Your task to perform on an android device: turn on location history Image 0: 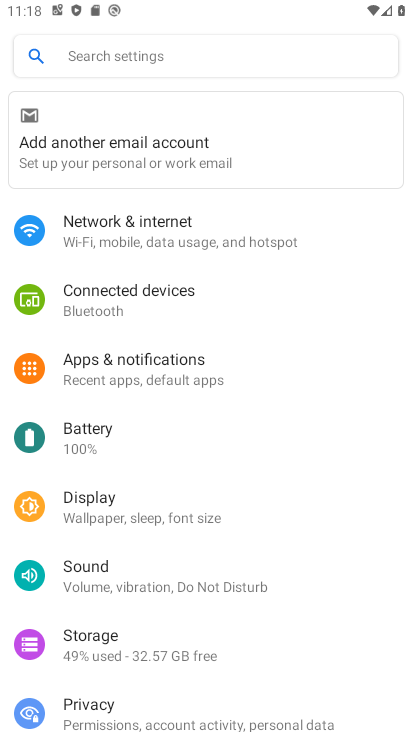
Step 0: press home button
Your task to perform on an android device: turn on location history Image 1: 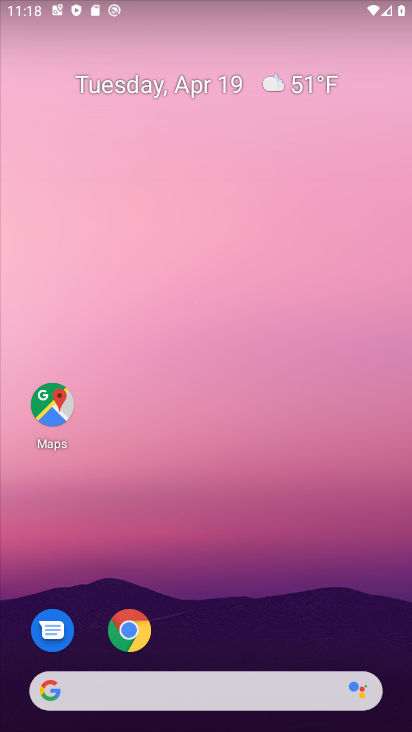
Step 1: click (58, 411)
Your task to perform on an android device: turn on location history Image 2: 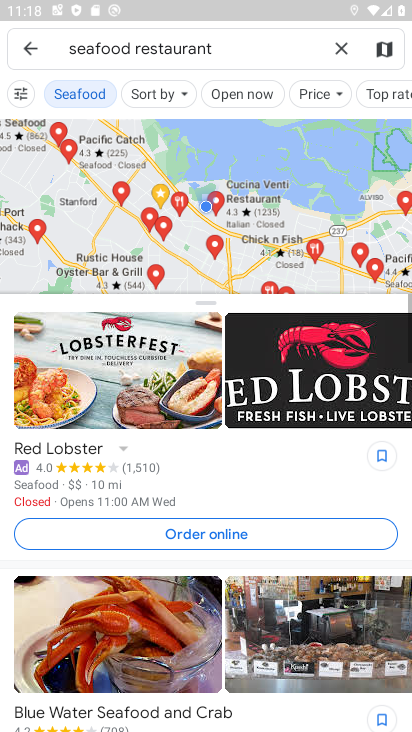
Step 2: click (35, 47)
Your task to perform on an android device: turn on location history Image 3: 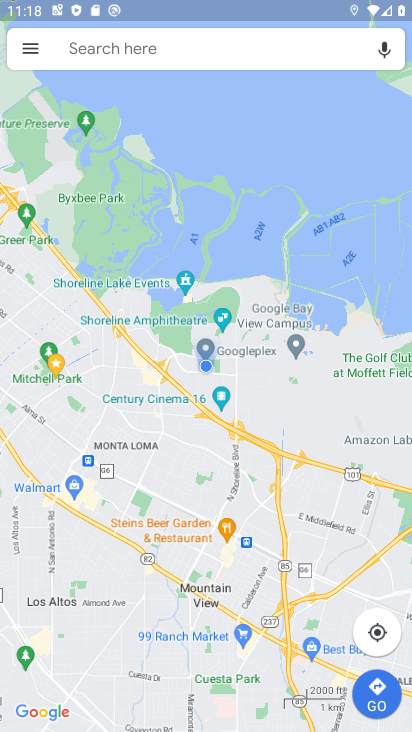
Step 3: click (35, 47)
Your task to perform on an android device: turn on location history Image 4: 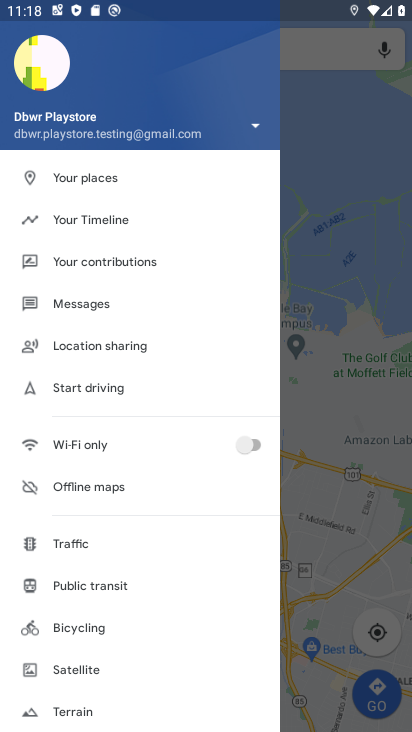
Step 4: click (110, 217)
Your task to perform on an android device: turn on location history Image 5: 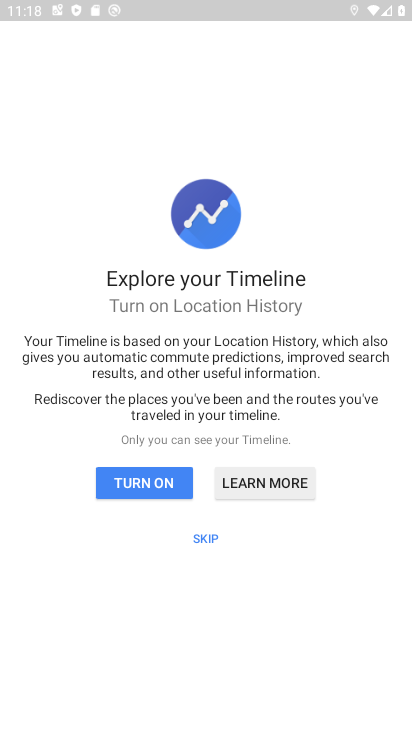
Step 5: click (199, 533)
Your task to perform on an android device: turn on location history Image 6: 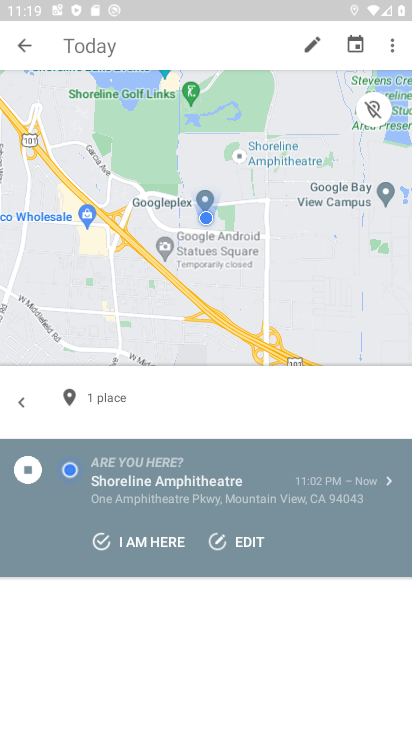
Step 6: click (398, 49)
Your task to perform on an android device: turn on location history Image 7: 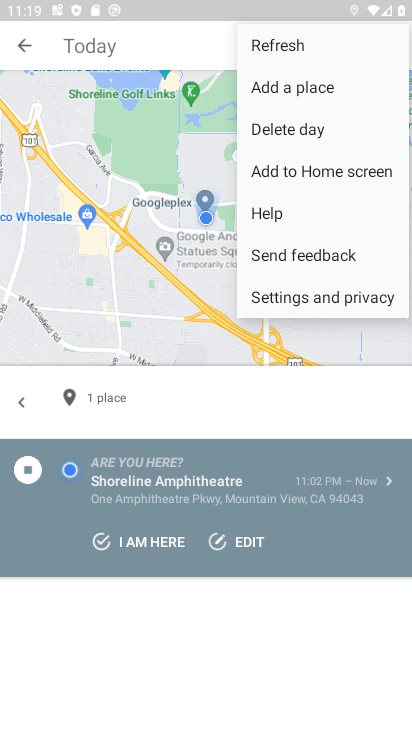
Step 7: click (330, 293)
Your task to perform on an android device: turn on location history Image 8: 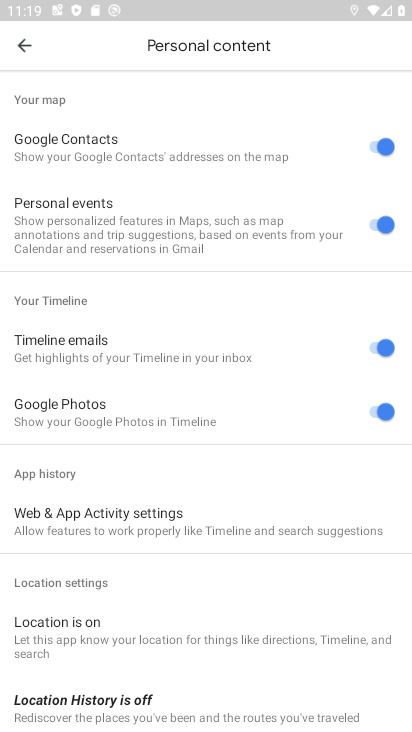
Step 8: click (254, 701)
Your task to perform on an android device: turn on location history Image 9: 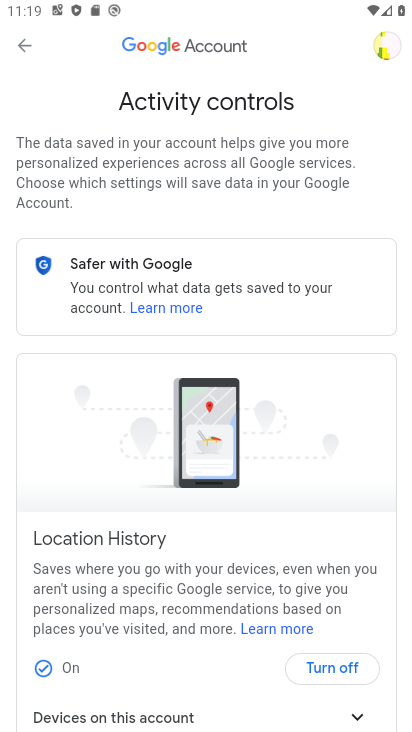
Step 9: task complete